Your task to perform on an android device: all mails in gmail Image 0: 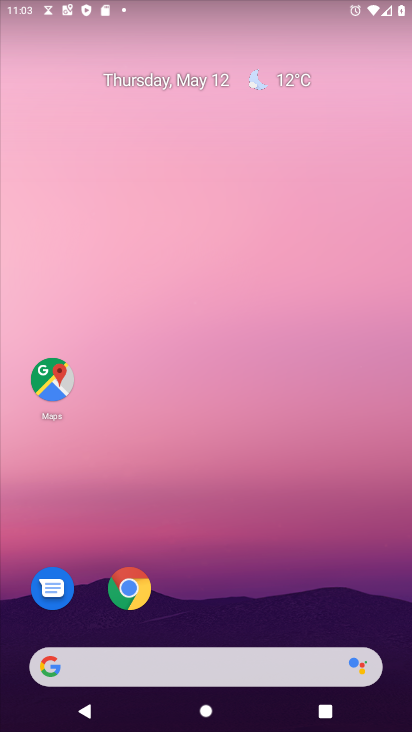
Step 0: drag from (237, 595) to (238, 65)
Your task to perform on an android device: all mails in gmail Image 1: 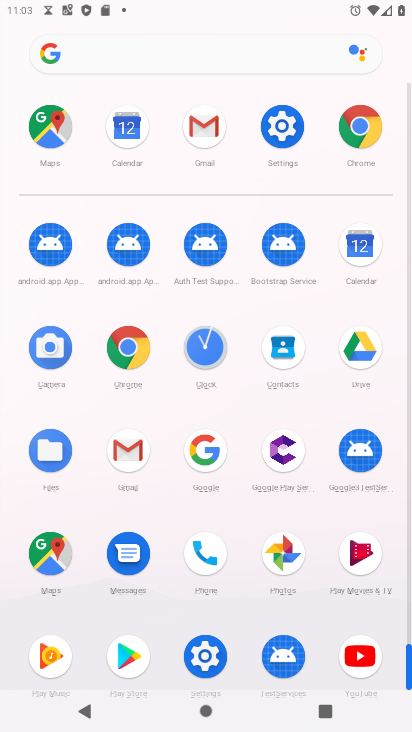
Step 1: click (205, 126)
Your task to perform on an android device: all mails in gmail Image 2: 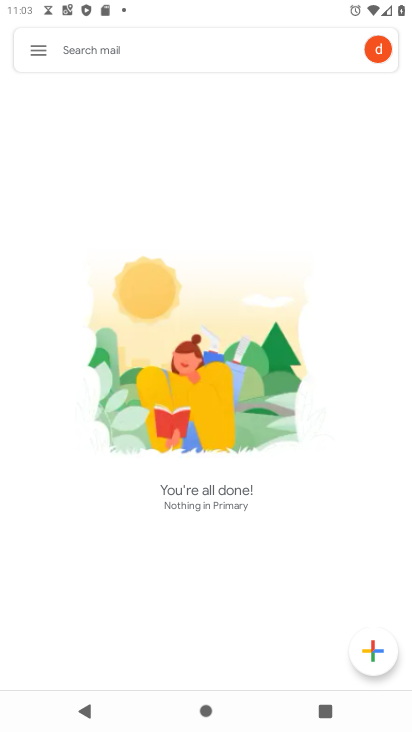
Step 2: click (44, 50)
Your task to perform on an android device: all mails in gmail Image 3: 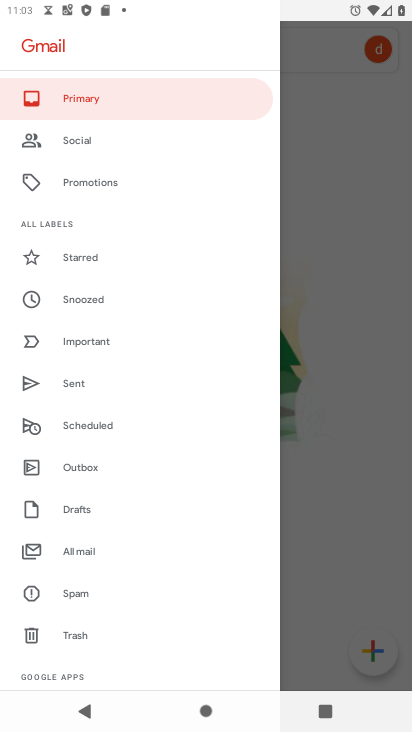
Step 3: click (102, 555)
Your task to perform on an android device: all mails in gmail Image 4: 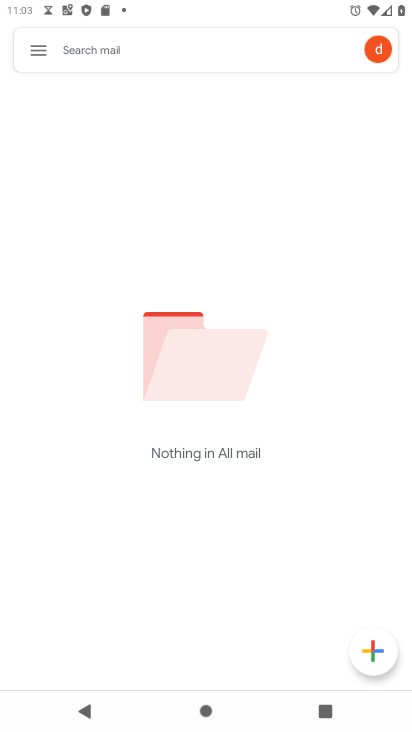
Step 4: task complete